Your task to perform on an android device: turn smart compose on in the gmail app Image 0: 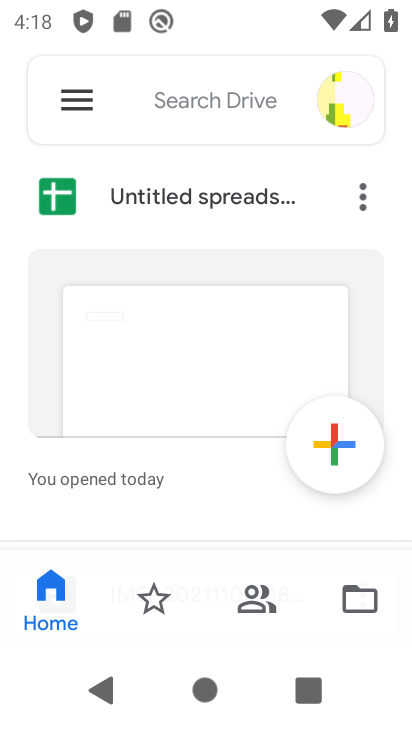
Step 0: press home button
Your task to perform on an android device: turn smart compose on in the gmail app Image 1: 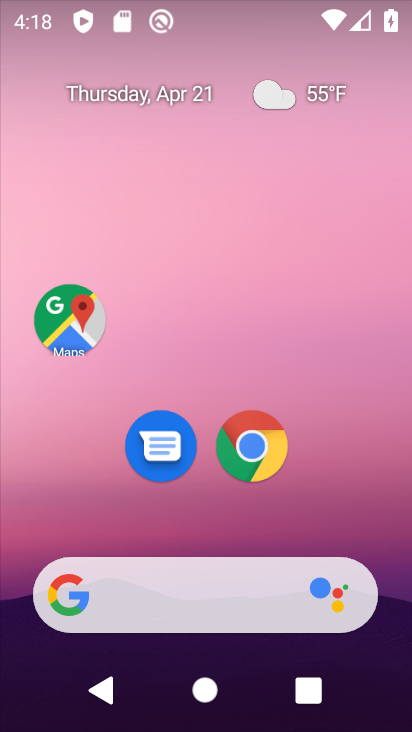
Step 1: drag from (172, 508) to (186, 128)
Your task to perform on an android device: turn smart compose on in the gmail app Image 2: 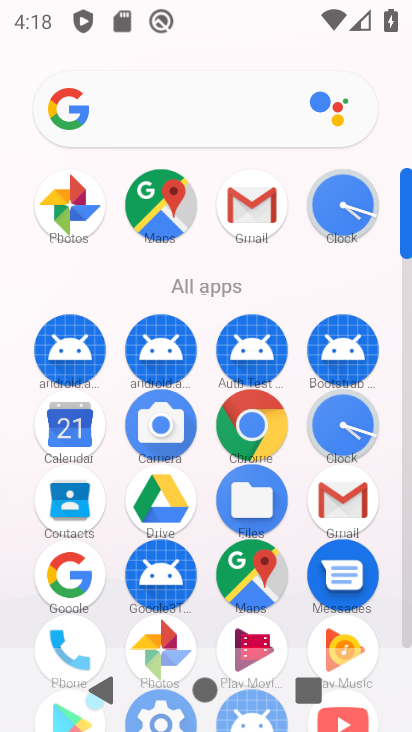
Step 2: click (247, 228)
Your task to perform on an android device: turn smart compose on in the gmail app Image 3: 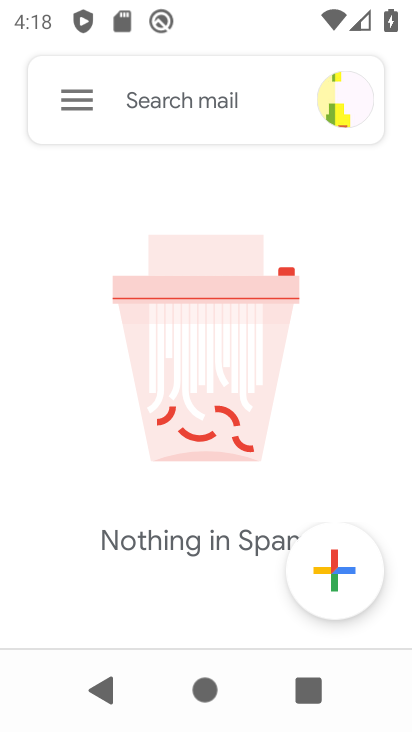
Step 3: click (83, 115)
Your task to perform on an android device: turn smart compose on in the gmail app Image 4: 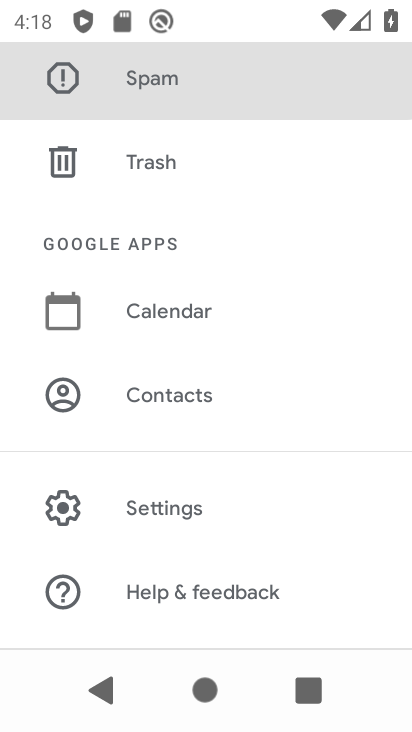
Step 4: click (192, 527)
Your task to perform on an android device: turn smart compose on in the gmail app Image 5: 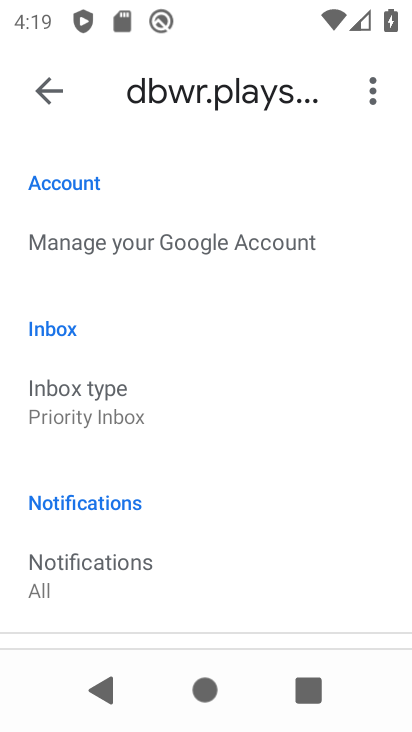
Step 5: task complete